Your task to perform on an android device: change timer sound Image 0: 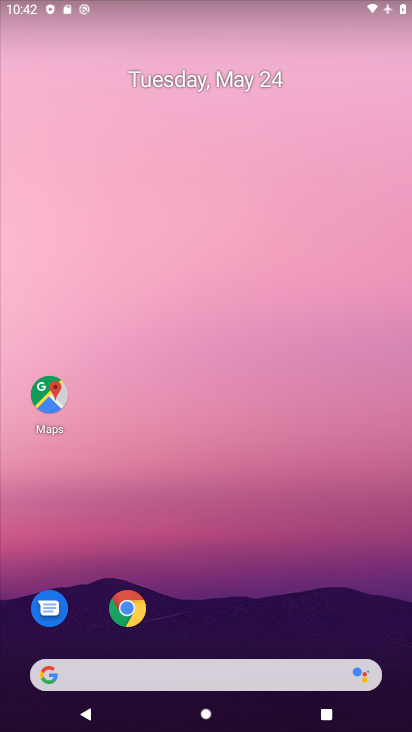
Step 0: drag from (384, 635) to (302, 125)
Your task to perform on an android device: change timer sound Image 1: 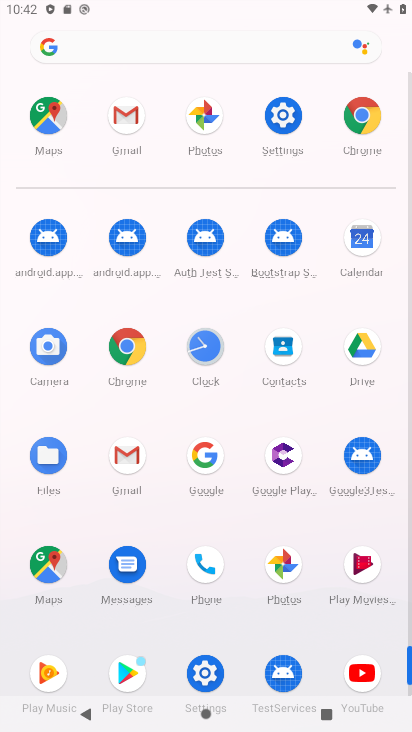
Step 1: click (205, 346)
Your task to perform on an android device: change timer sound Image 2: 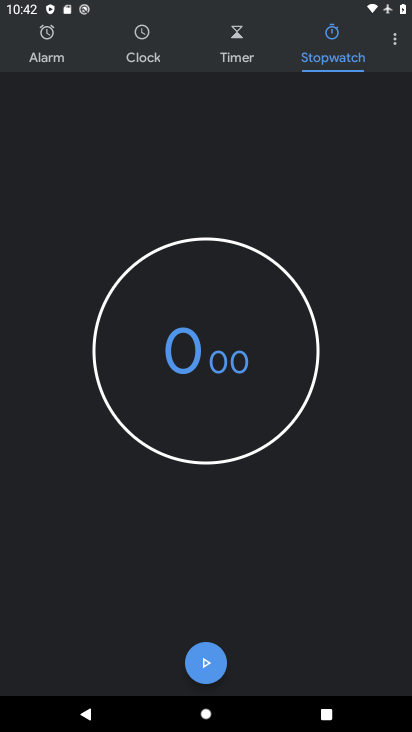
Step 2: click (393, 42)
Your task to perform on an android device: change timer sound Image 3: 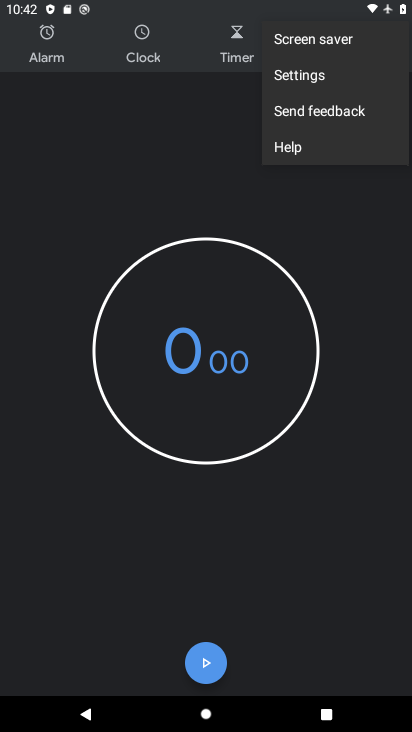
Step 3: click (302, 76)
Your task to perform on an android device: change timer sound Image 4: 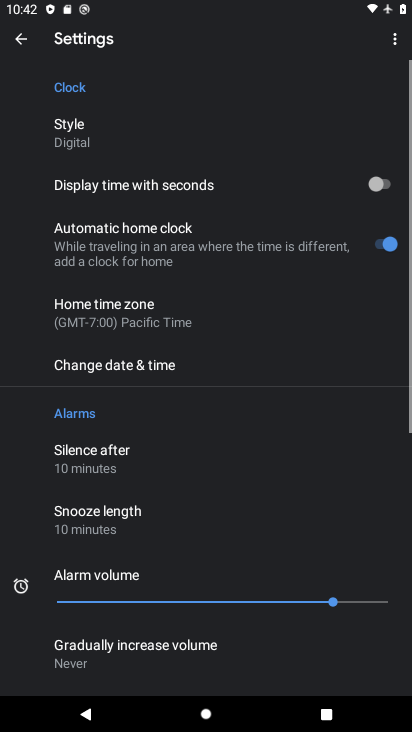
Step 4: drag from (187, 551) to (241, 164)
Your task to perform on an android device: change timer sound Image 5: 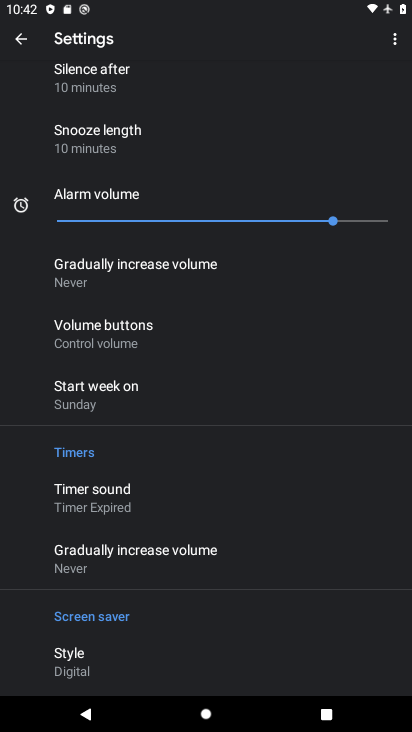
Step 5: click (109, 488)
Your task to perform on an android device: change timer sound Image 6: 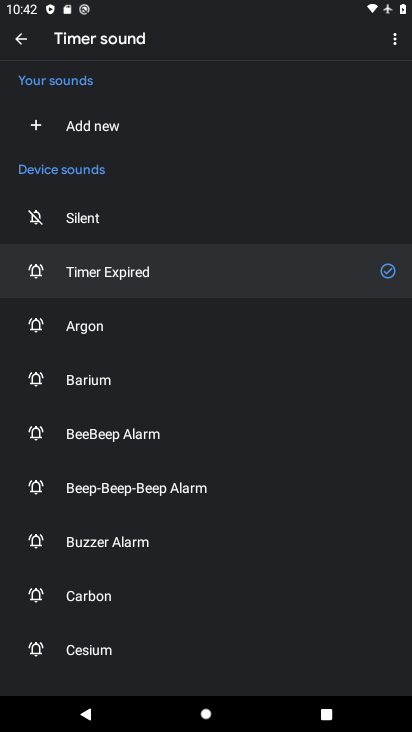
Step 6: click (123, 424)
Your task to perform on an android device: change timer sound Image 7: 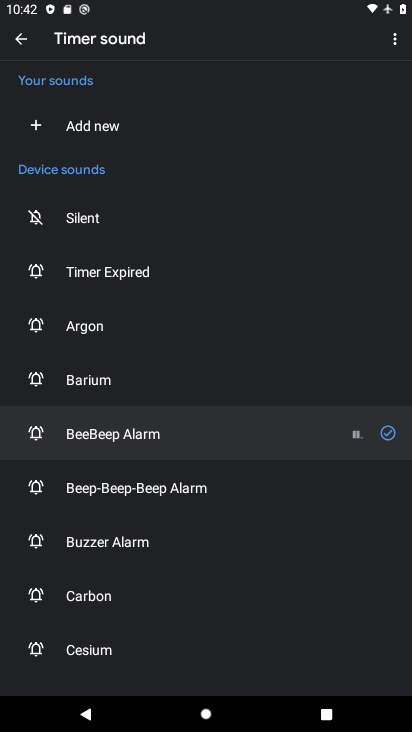
Step 7: task complete